Your task to perform on an android device: Search for seafood restaurants on Google Maps Image 0: 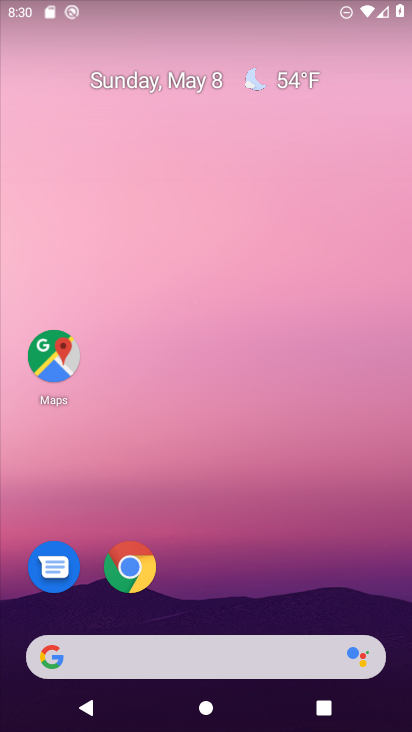
Step 0: drag from (260, 515) to (311, 85)
Your task to perform on an android device: Search for seafood restaurants on Google Maps Image 1: 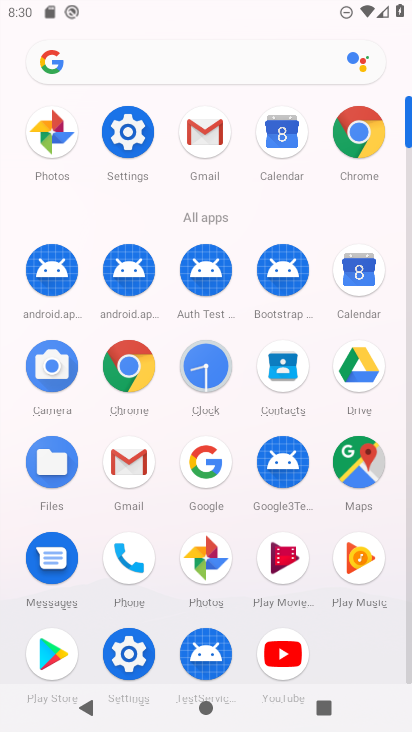
Step 1: click (366, 482)
Your task to perform on an android device: Search for seafood restaurants on Google Maps Image 2: 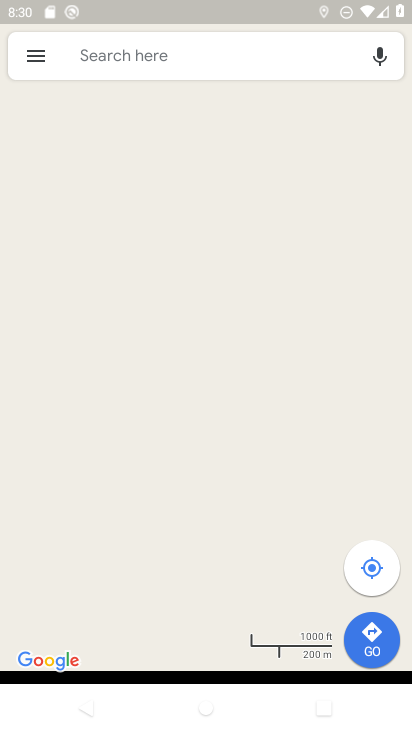
Step 2: click (258, 44)
Your task to perform on an android device: Search for seafood restaurants on Google Maps Image 3: 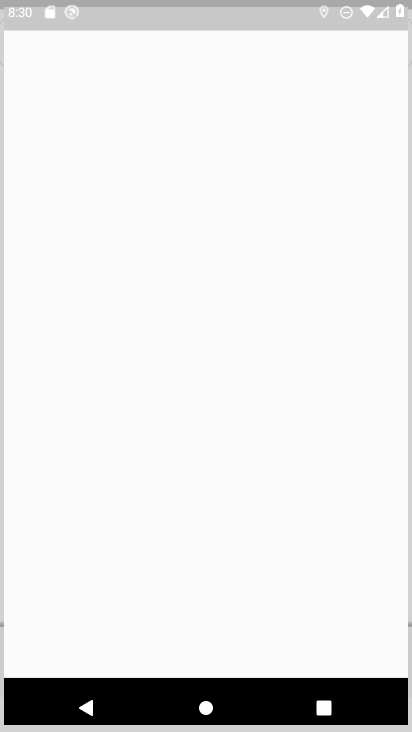
Step 3: click (264, 57)
Your task to perform on an android device: Search for seafood restaurants on Google Maps Image 4: 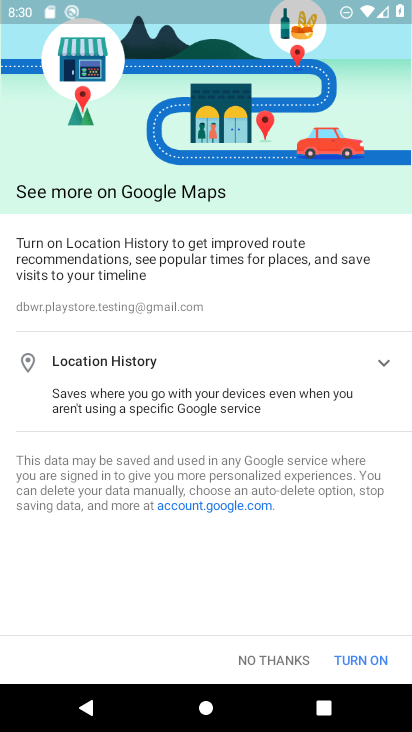
Step 4: press back button
Your task to perform on an android device: Search for seafood restaurants on Google Maps Image 5: 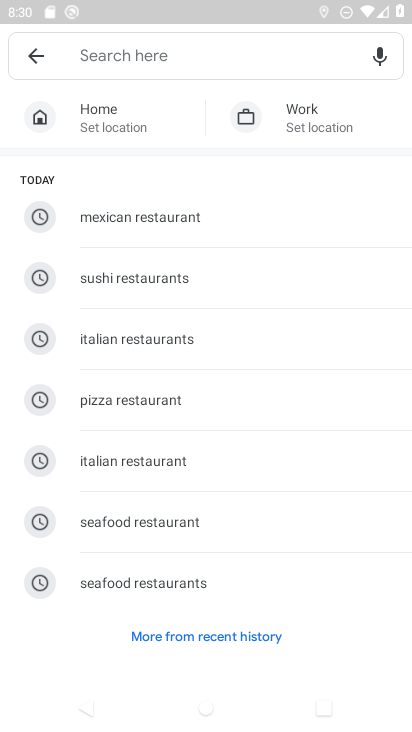
Step 5: click (192, 521)
Your task to perform on an android device: Search for seafood restaurants on Google Maps Image 6: 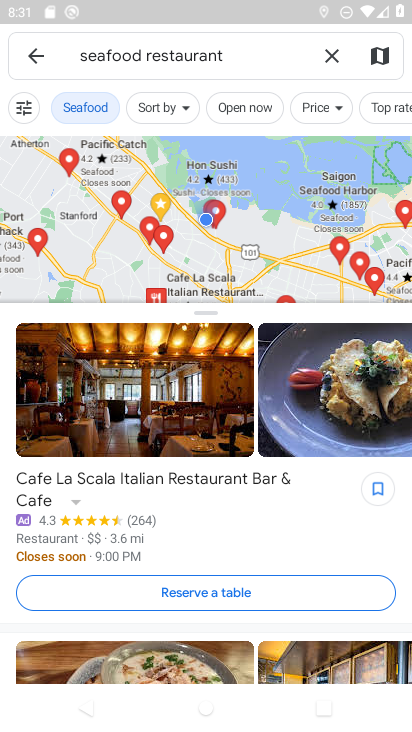
Step 6: task complete